Your task to perform on an android device: turn on javascript in the chrome app Image 0: 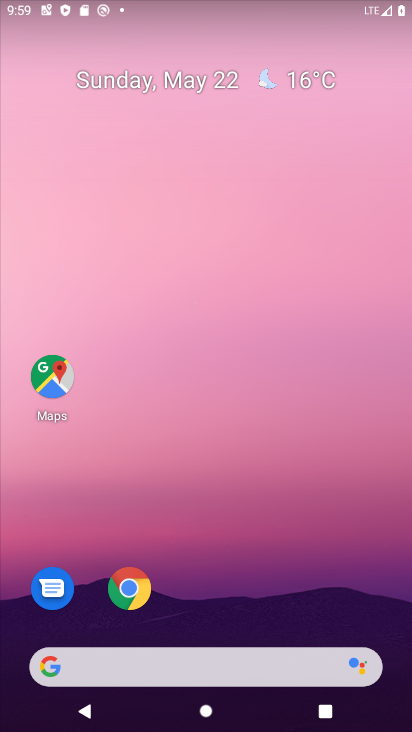
Step 0: click (144, 591)
Your task to perform on an android device: turn on javascript in the chrome app Image 1: 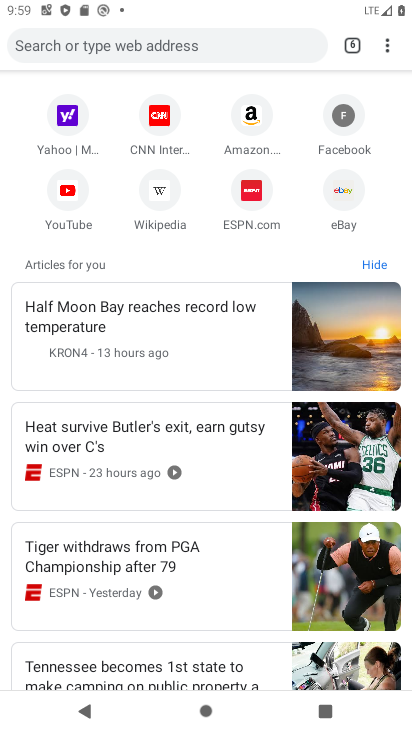
Step 1: click (387, 47)
Your task to perform on an android device: turn on javascript in the chrome app Image 2: 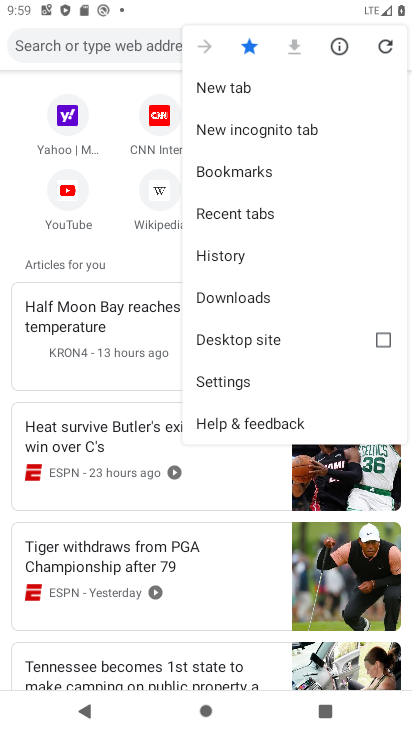
Step 2: click (212, 391)
Your task to perform on an android device: turn on javascript in the chrome app Image 3: 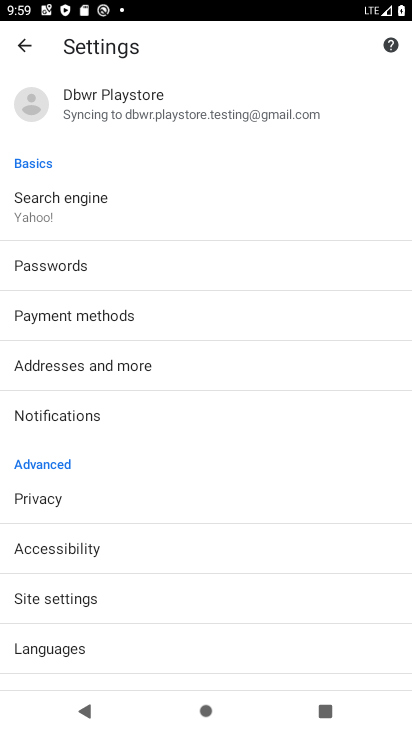
Step 3: click (92, 595)
Your task to perform on an android device: turn on javascript in the chrome app Image 4: 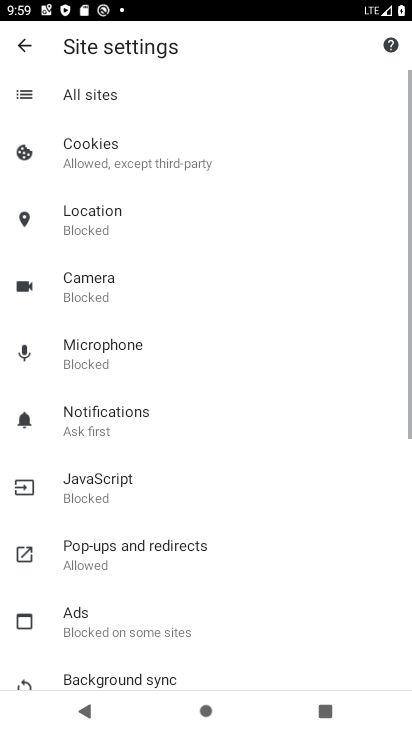
Step 4: click (174, 485)
Your task to perform on an android device: turn on javascript in the chrome app Image 5: 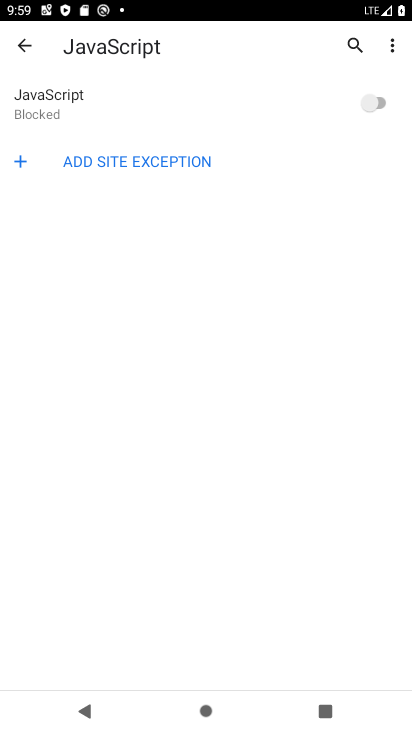
Step 5: click (376, 91)
Your task to perform on an android device: turn on javascript in the chrome app Image 6: 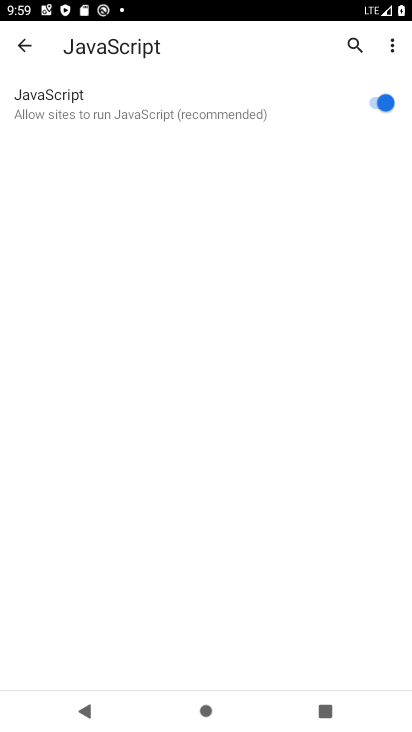
Step 6: task complete